Your task to perform on an android device: Do I have any events tomorrow? Image 0: 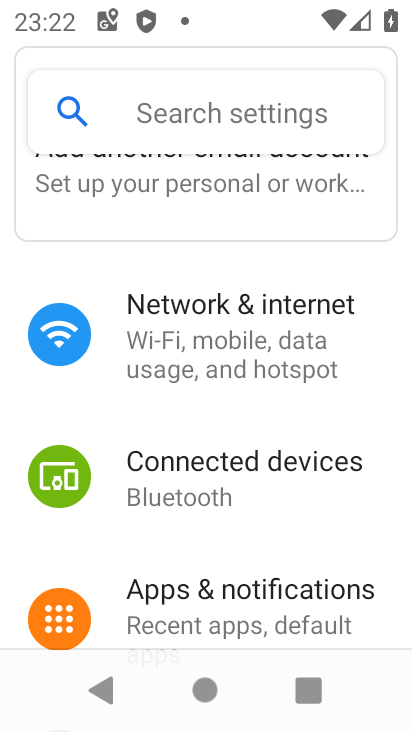
Step 0: press home button
Your task to perform on an android device: Do I have any events tomorrow? Image 1: 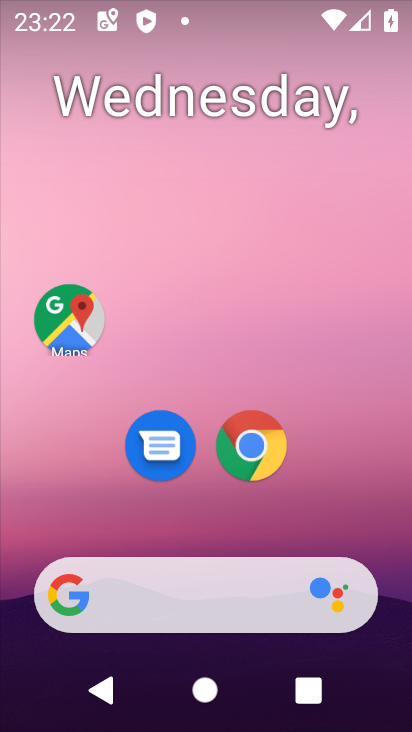
Step 1: drag from (184, 537) to (219, 231)
Your task to perform on an android device: Do I have any events tomorrow? Image 2: 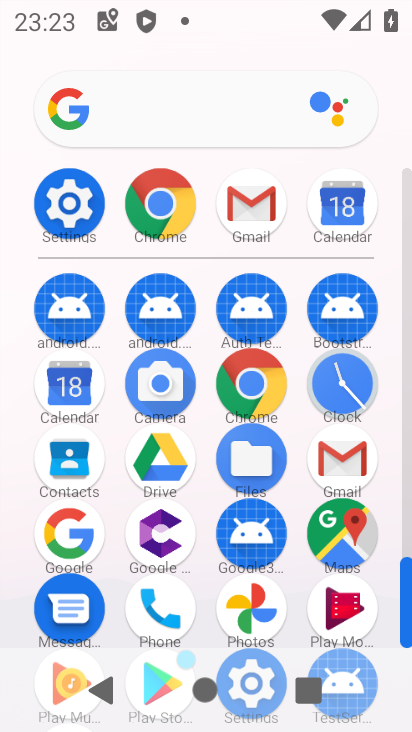
Step 2: click (50, 377)
Your task to perform on an android device: Do I have any events tomorrow? Image 3: 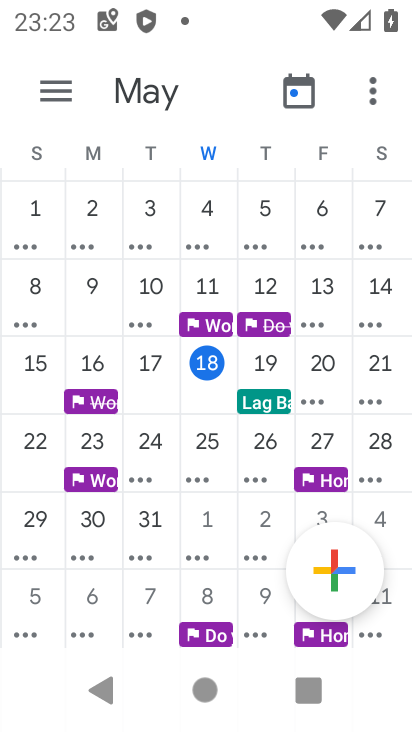
Step 3: click (327, 355)
Your task to perform on an android device: Do I have any events tomorrow? Image 4: 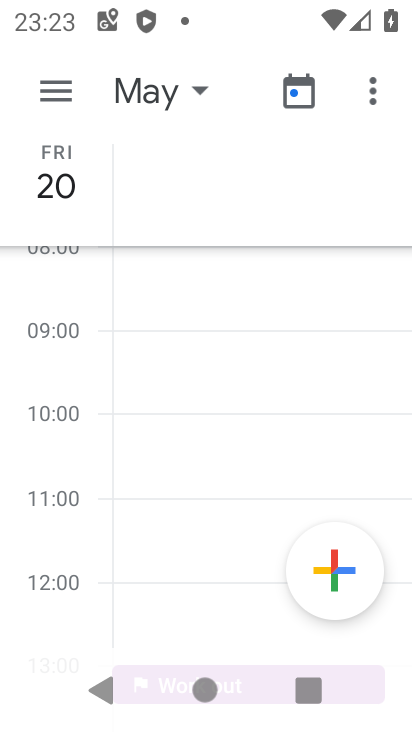
Step 4: task complete